Your task to perform on an android device: Set the phone to "Do not disturb". Image 0: 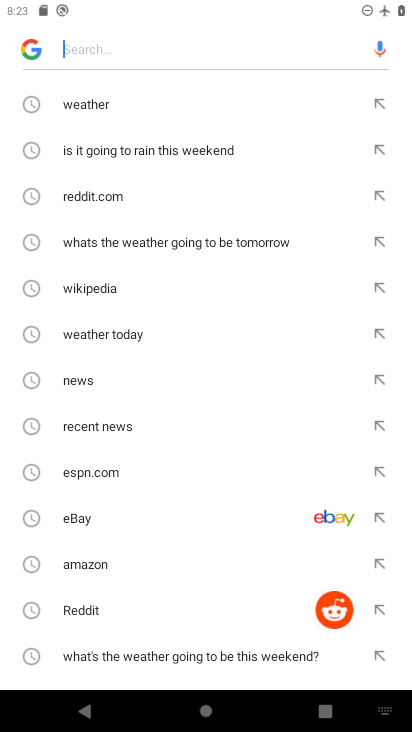
Step 0: press back button
Your task to perform on an android device: Set the phone to "Do not disturb". Image 1: 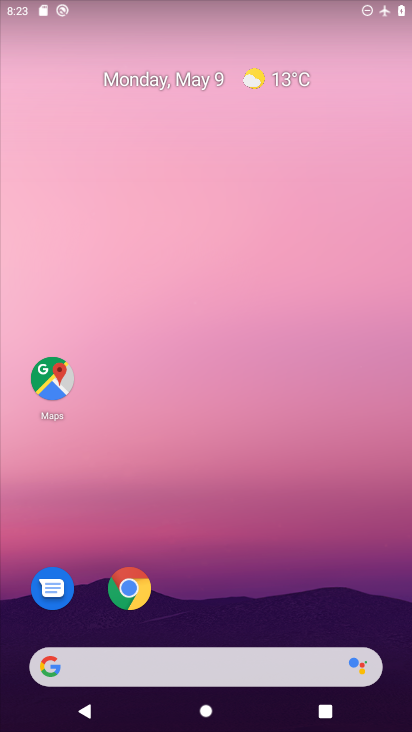
Step 1: drag from (265, 594) to (296, 57)
Your task to perform on an android device: Set the phone to "Do not disturb". Image 2: 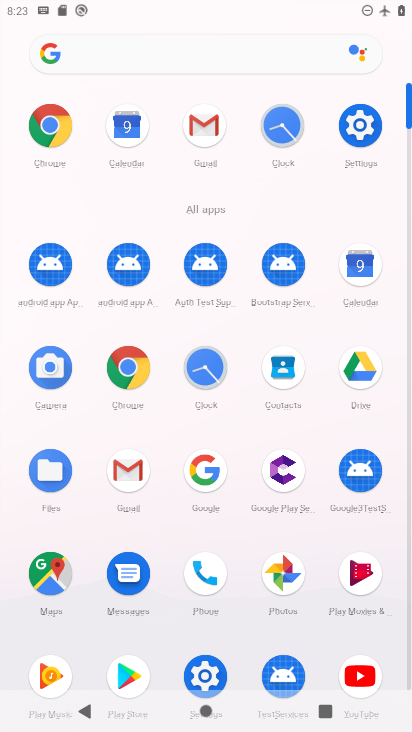
Step 2: click (353, 149)
Your task to perform on an android device: Set the phone to "Do not disturb". Image 3: 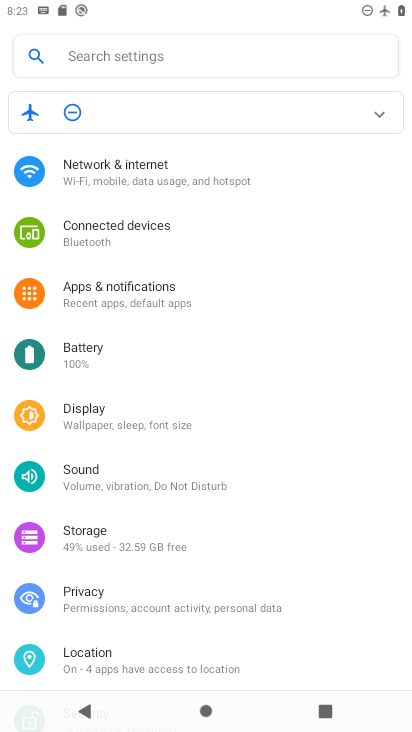
Step 3: click (204, 496)
Your task to perform on an android device: Set the phone to "Do not disturb". Image 4: 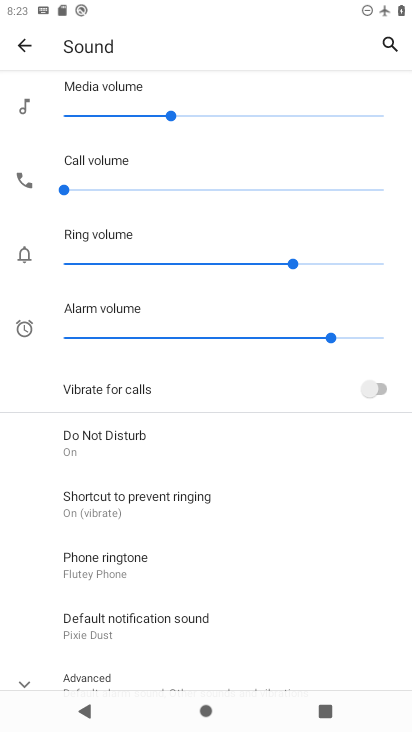
Step 4: task complete